Your task to perform on an android device: turn on data saver in the chrome app Image 0: 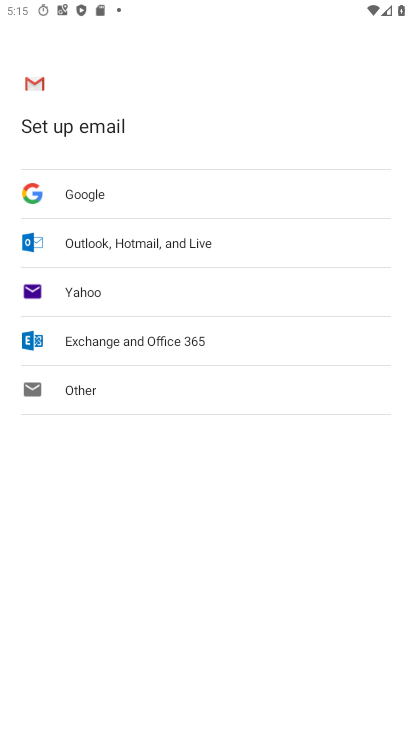
Step 0: press home button
Your task to perform on an android device: turn on data saver in the chrome app Image 1: 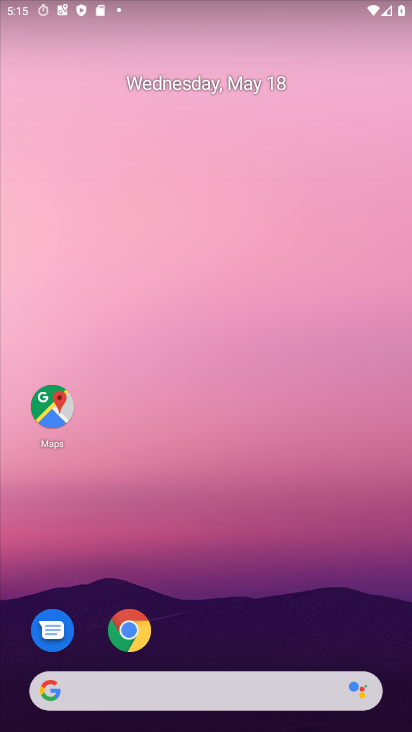
Step 1: click (113, 642)
Your task to perform on an android device: turn on data saver in the chrome app Image 2: 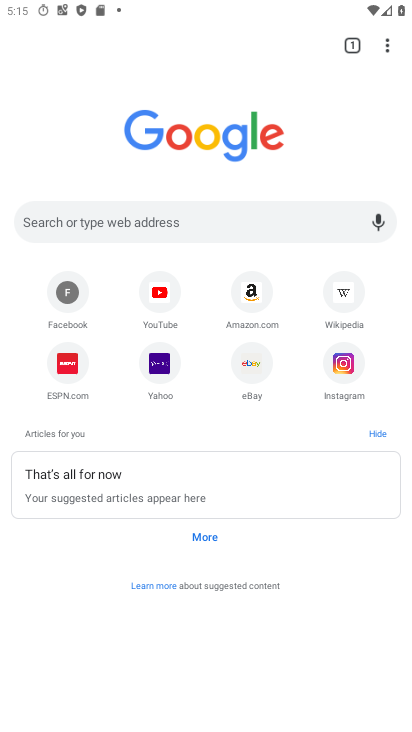
Step 2: click (392, 44)
Your task to perform on an android device: turn on data saver in the chrome app Image 3: 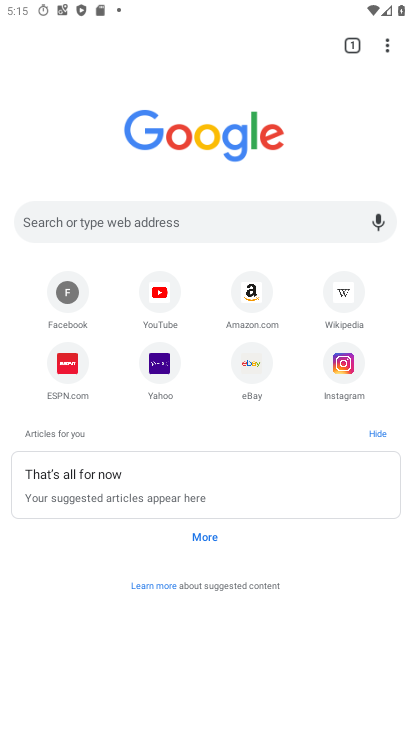
Step 3: click (384, 45)
Your task to perform on an android device: turn on data saver in the chrome app Image 4: 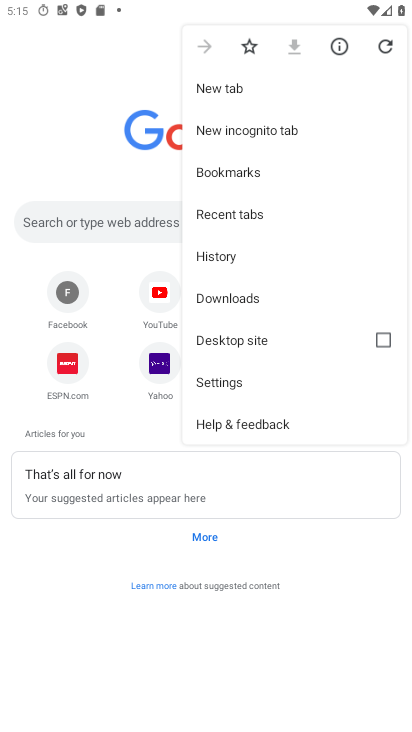
Step 4: click (225, 384)
Your task to perform on an android device: turn on data saver in the chrome app Image 5: 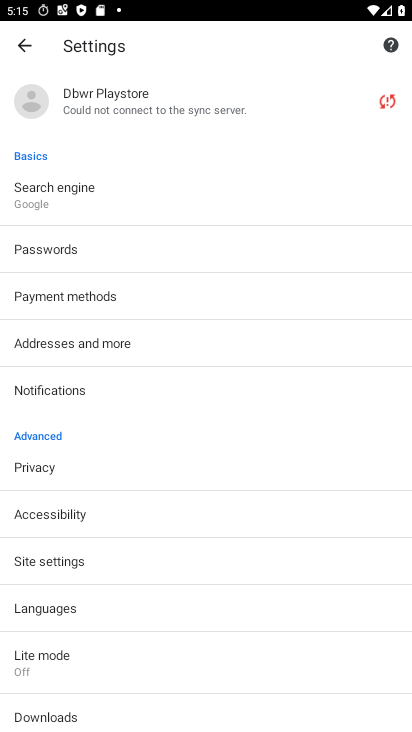
Step 5: drag from (60, 709) to (96, 320)
Your task to perform on an android device: turn on data saver in the chrome app Image 6: 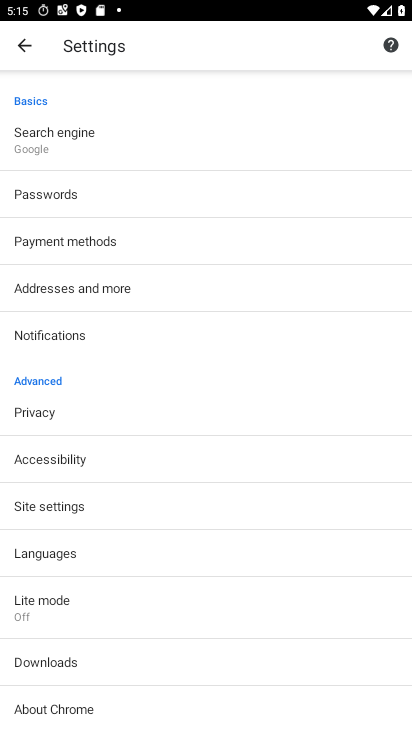
Step 6: click (55, 605)
Your task to perform on an android device: turn on data saver in the chrome app Image 7: 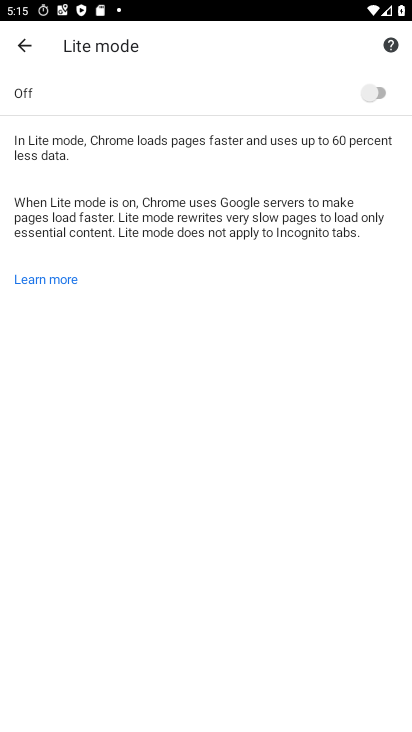
Step 7: click (378, 86)
Your task to perform on an android device: turn on data saver in the chrome app Image 8: 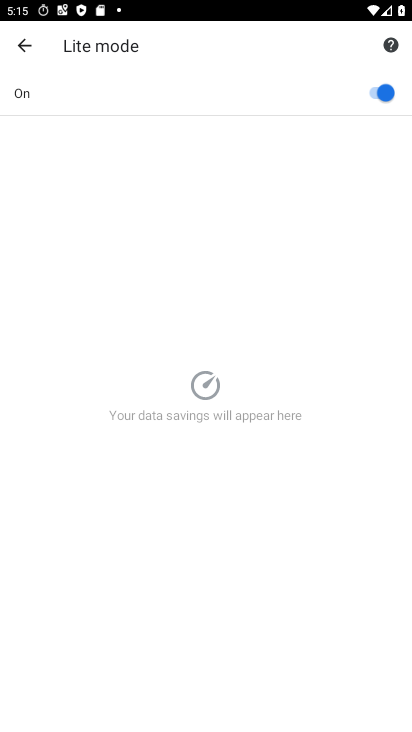
Step 8: task complete